Your task to perform on an android device: Go to settings Image 0: 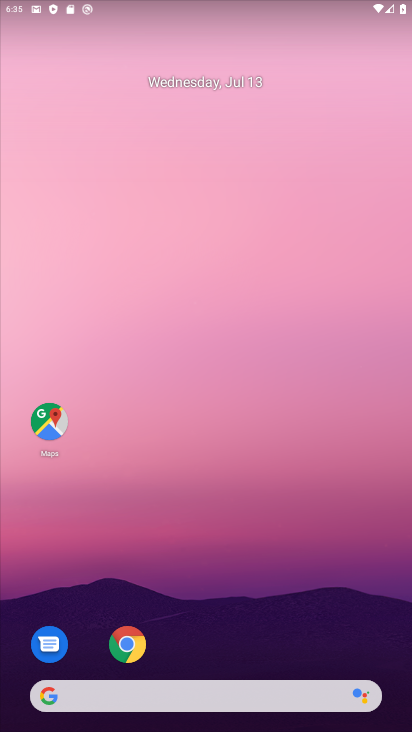
Step 0: drag from (276, 614) to (136, 1)
Your task to perform on an android device: Go to settings Image 1: 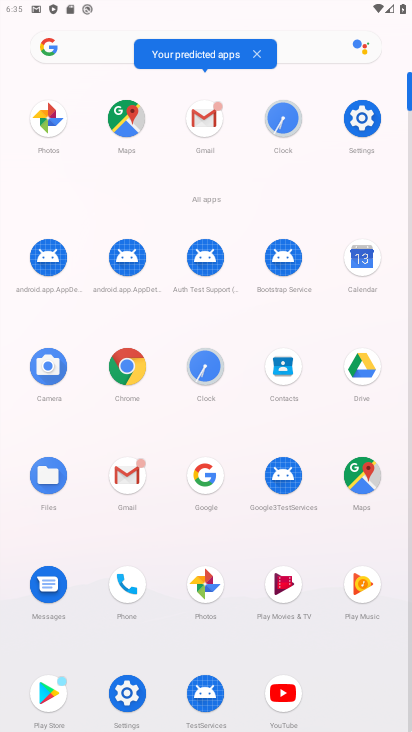
Step 1: click (366, 120)
Your task to perform on an android device: Go to settings Image 2: 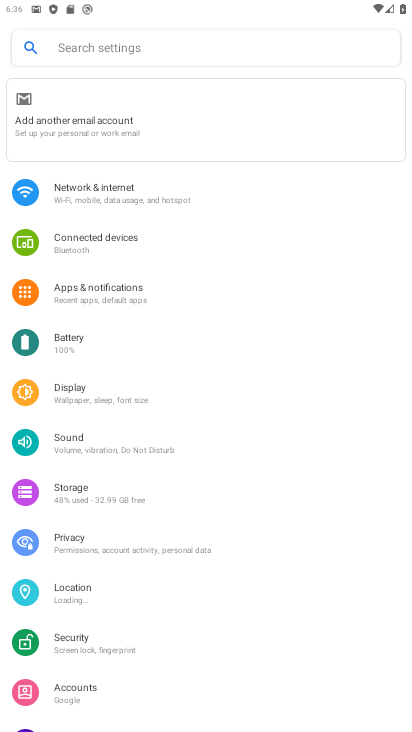
Step 2: task complete